Your task to perform on an android device: visit the assistant section in the google photos Image 0: 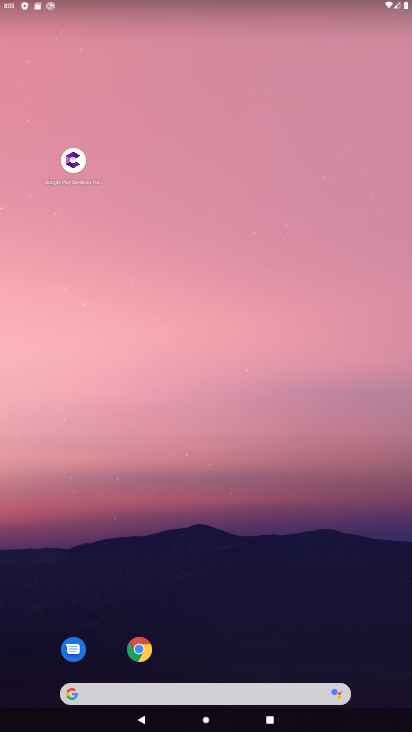
Step 0: drag from (46, 691) to (181, 185)
Your task to perform on an android device: visit the assistant section in the google photos Image 1: 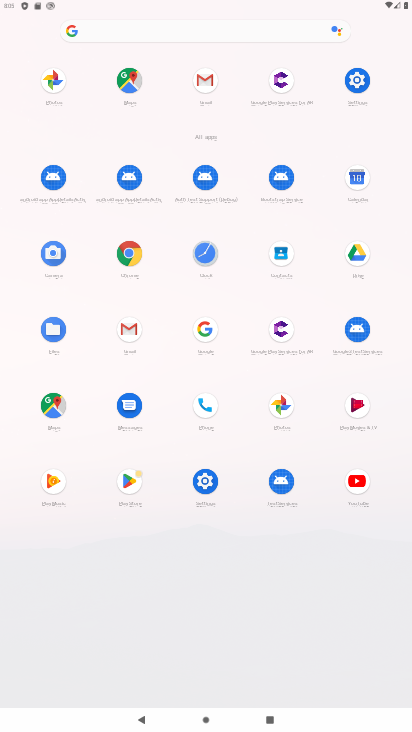
Step 1: click (292, 412)
Your task to perform on an android device: visit the assistant section in the google photos Image 2: 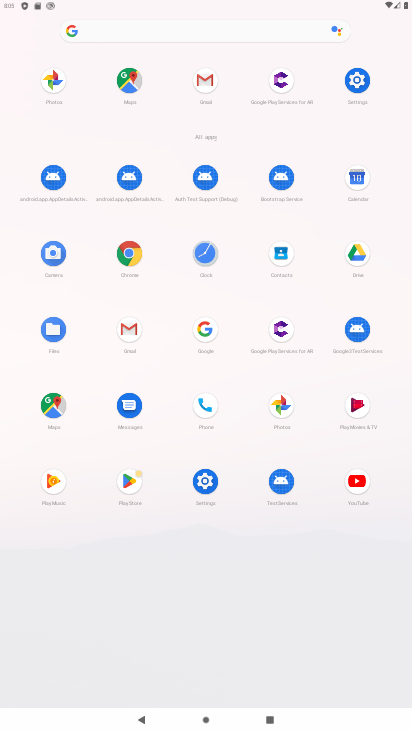
Step 2: click (289, 417)
Your task to perform on an android device: visit the assistant section in the google photos Image 3: 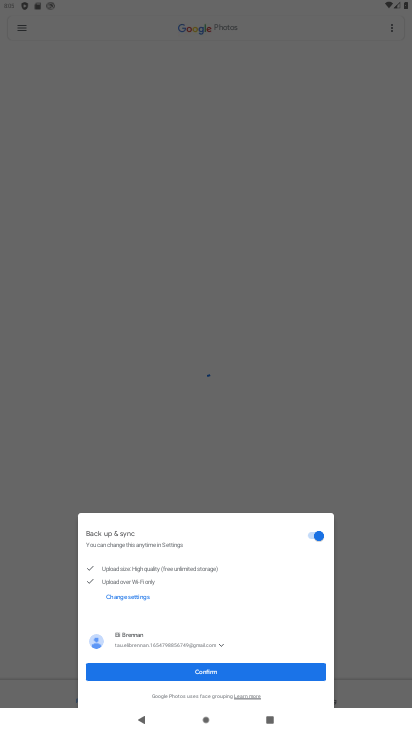
Step 3: click (207, 671)
Your task to perform on an android device: visit the assistant section in the google photos Image 4: 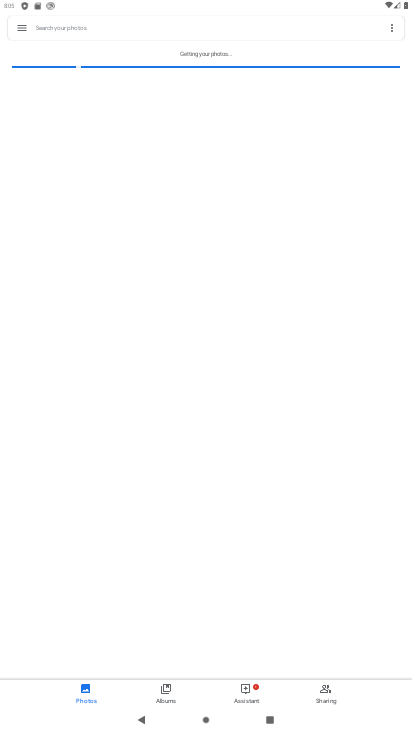
Step 4: click (247, 687)
Your task to perform on an android device: visit the assistant section in the google photos Image 5: 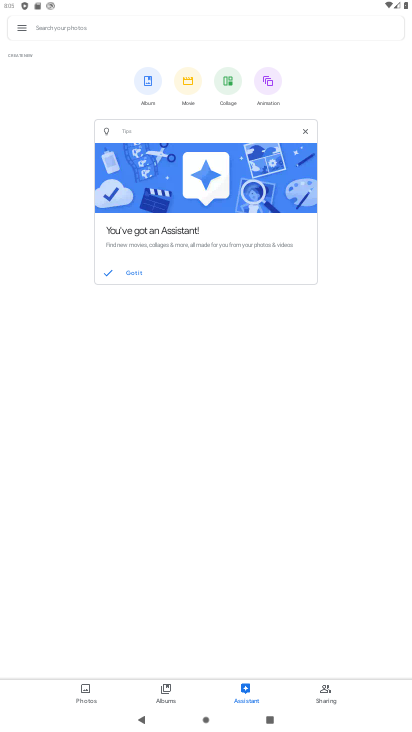
Step 5: task complete